Your task to perform on an android device: Open Google Maps and go to "Timeline" Image 0: 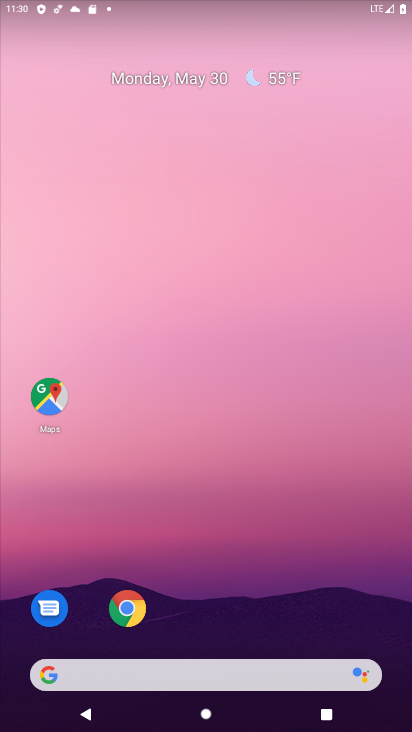
Step 0: click (54, 406)
Your task to perform on an android device: Open Google Maps and go to "Timeline" Image 1: 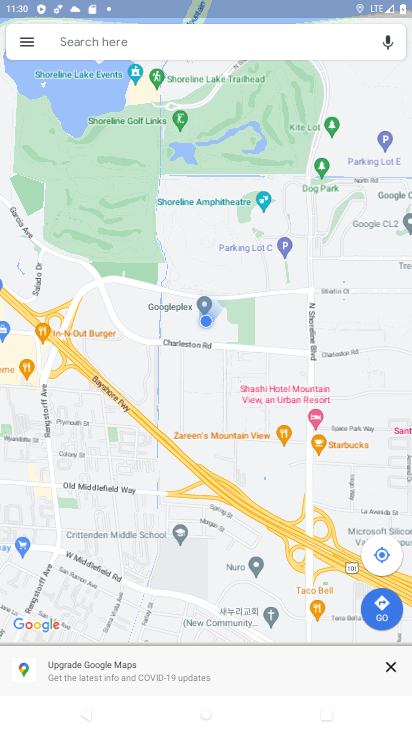
Step 1: click (26, 43)
Your task to perform on an android device: Open Google Maps and go to "Timeline" Image 2: 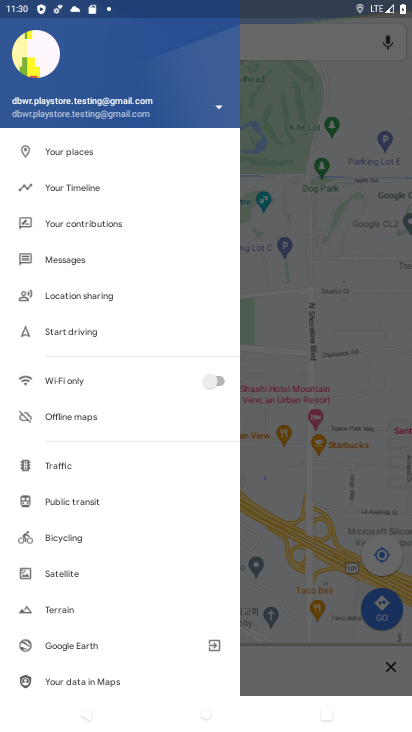
Step 2: click (54, 186)
Your task to perform on an android device: Open Google Maps and go to "Timeline" Image 3: 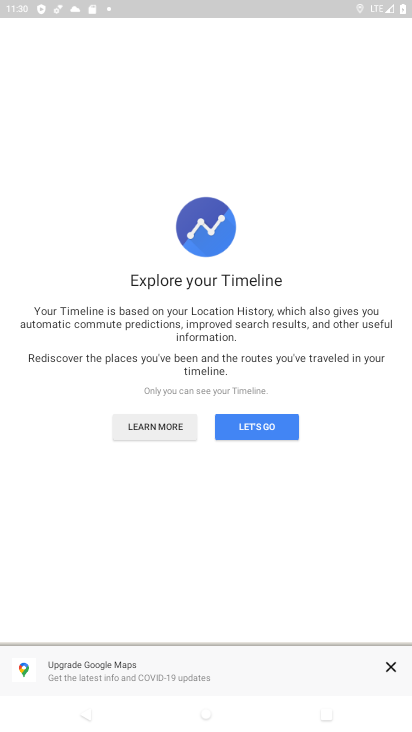
Step 3: click (258, 429)
Your task to perform on an android device: Open Google Maps and go to "Timeline" Image 4: 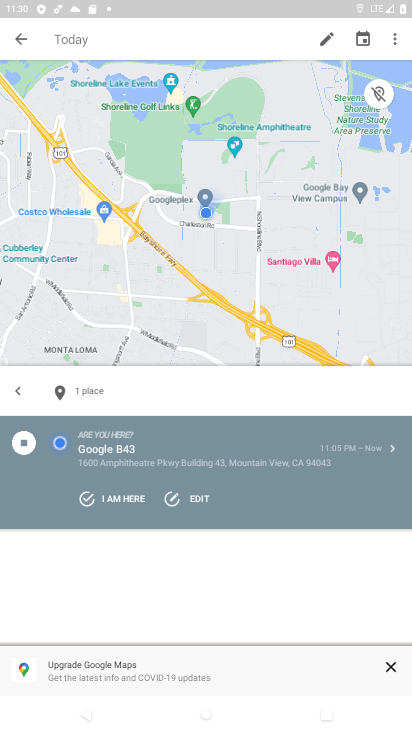
Step 4: task complete